Your task to perform on an android device: Go to display settings Image 0: 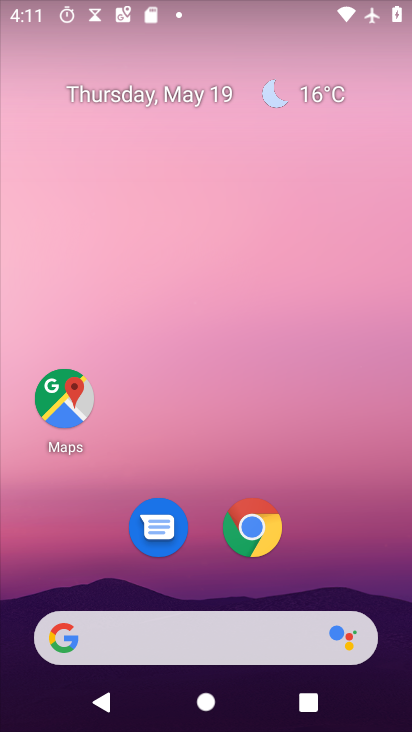
Step 0: drag from (341, 488) to (210, 0)
Your task to perform on an android device: Go to display settings Image 1: 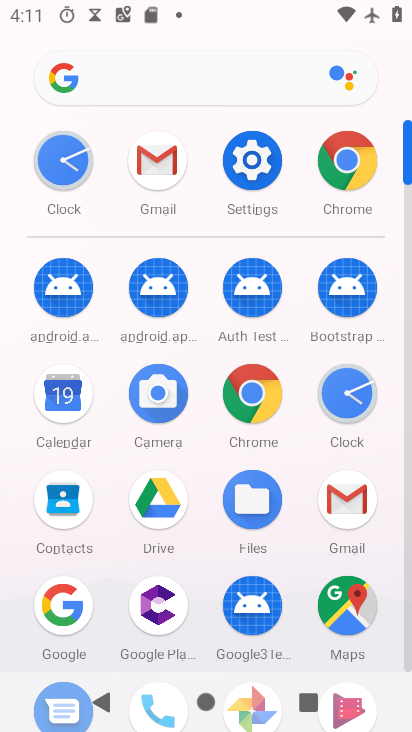
Step 1: click (254, 214)
Your task to perform on an android device: Go to display settings Image 2: 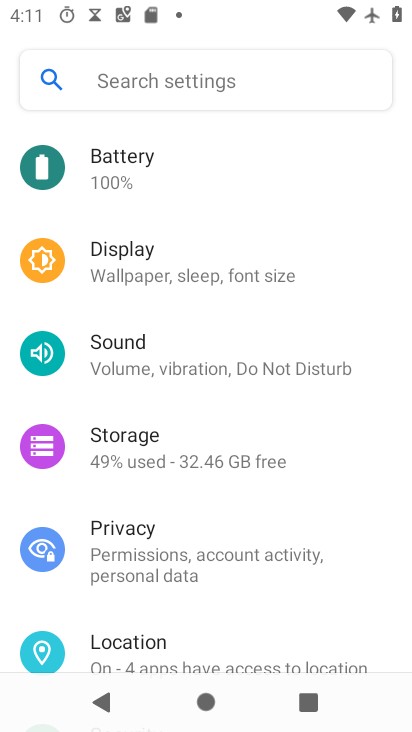
Step 2: click (204, 274)
Your task to perform on an android device: Go to display settings Image 3: 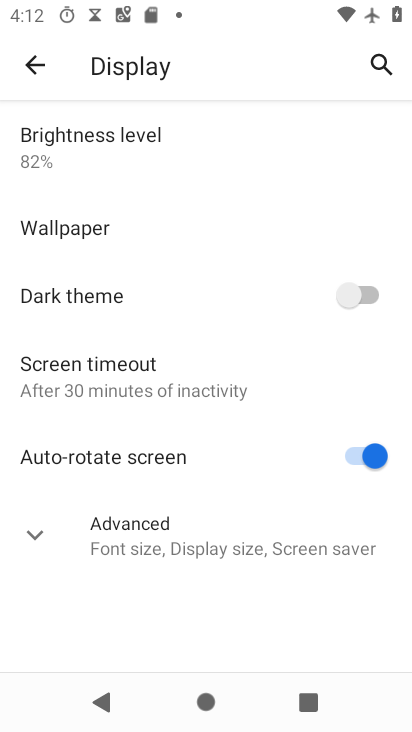
Step 3: task complete